Your task to perform on an android device: turn on javascript in the chrome app Image 0: 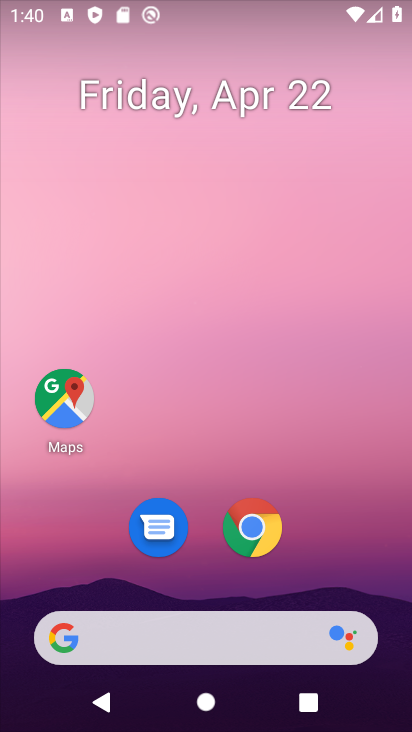
Step 0: drag from (355, 528) to (376, 14)
Your task to perform on an android device: turn on javascript in the chrome app Image 1: 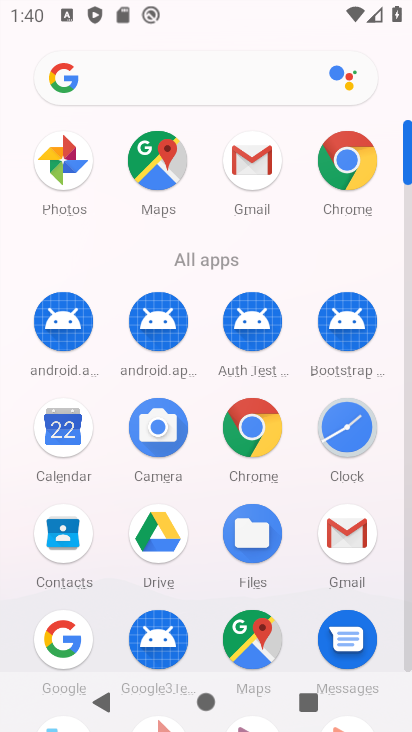
Step 1: click (335, 163)
Your task to perform on an android device: turn on javascript in the chrome app Image 2: 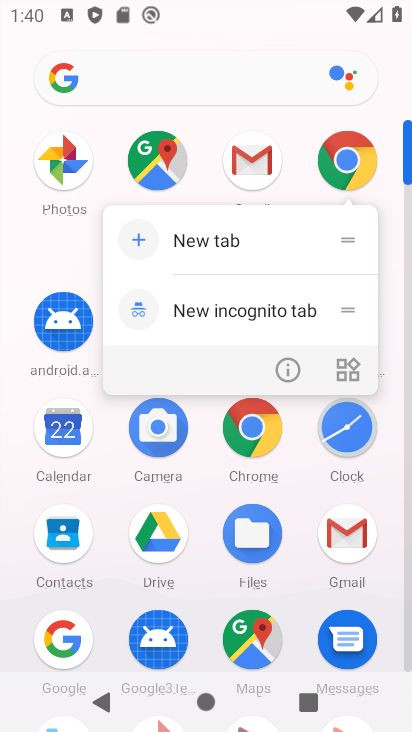
Step 2: click (335, 162)
Your task to perform on an android device: turn on javascript in the chrome app Image 3: 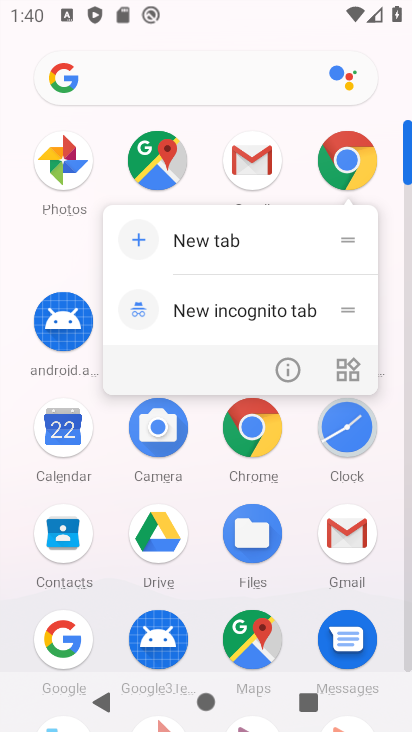
Step 3: click (335, 160)
Your task to perform on an android device: turn on javascript in the chrome app Image 4: 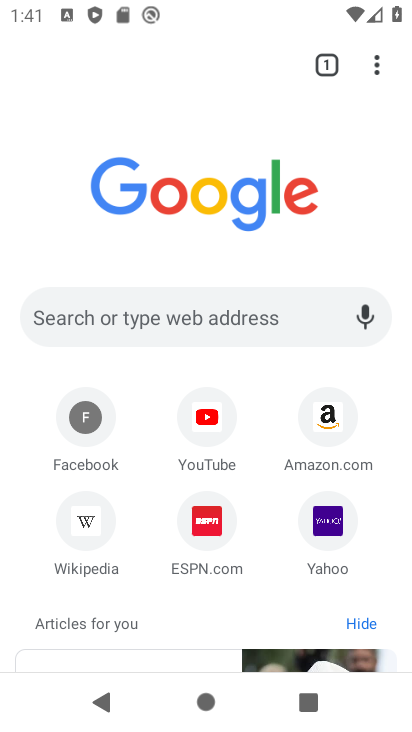
Step 4: drag from (370, 71) to (168, 539)
Your task to perform on an android device: turn on javascript in the chrome app Image 5: 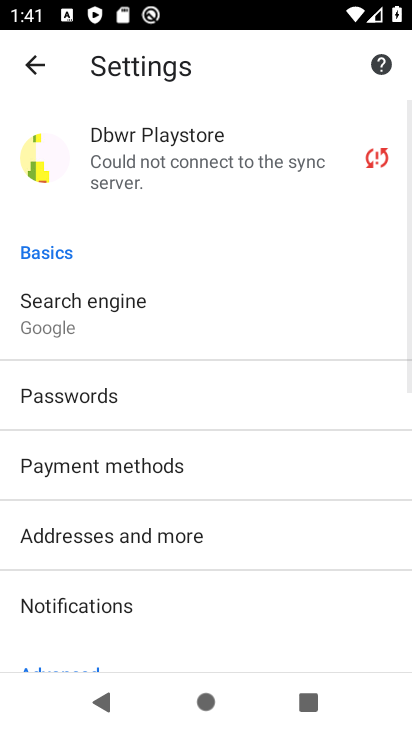
Step 5: drag from (190, 575) to (107, 213)
Your task to perform on an android device: turn on javascript in the chrome app Image 6: 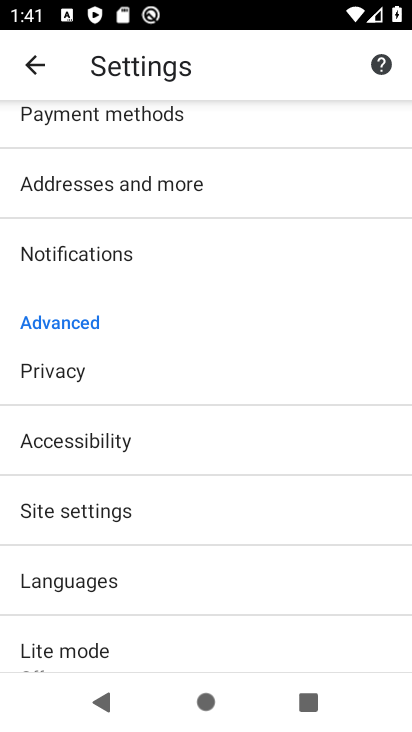
Step 6: click (109, 513)
Your task to perform on an android device: turn on javascript in the chrome app Image 7: 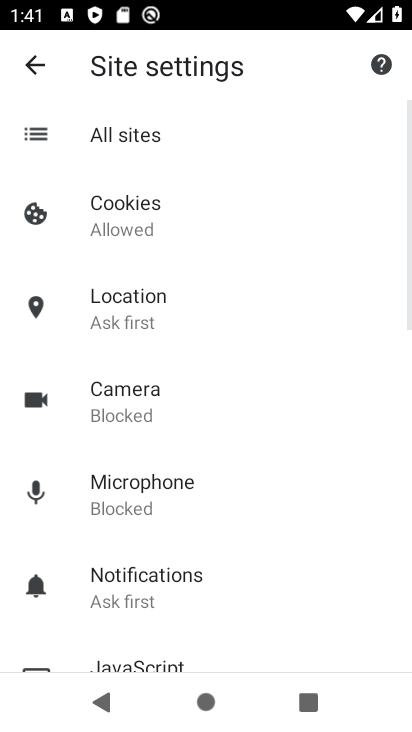
Step 7: drag from (137, 518) to (64, 180)
Your task to perform on an android device: turn on javascript in the chrome app Image 8: 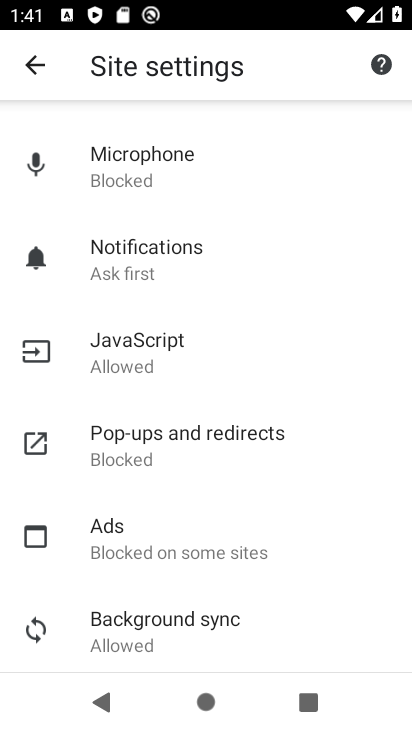
Step 8: drag from (222, 585) to (168, 274)
Your task to perform on an android device: turn on javascript in the chrome app Image 9: 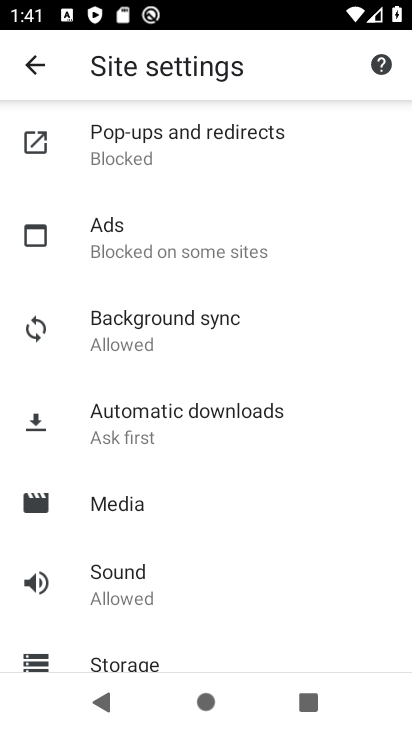
Step 9: drag from (213, 415) to (231, 581)
Your task to perform on an android device: turn on javascript in the chrome app Image 10: 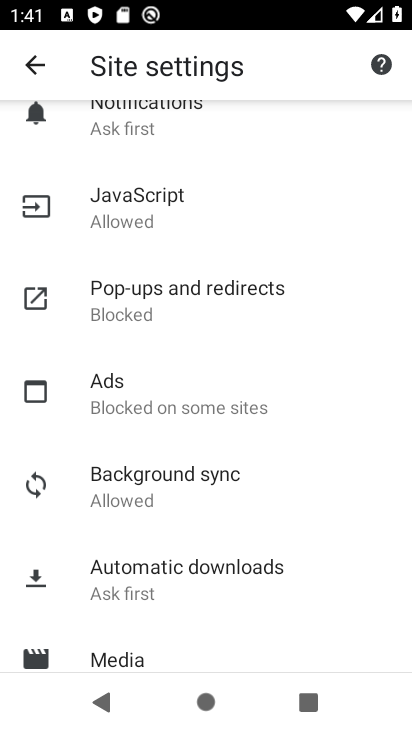
Step 10: click (120, 206)
Your task to perform on an android device: turn on javascript in the chrome app Image 11: 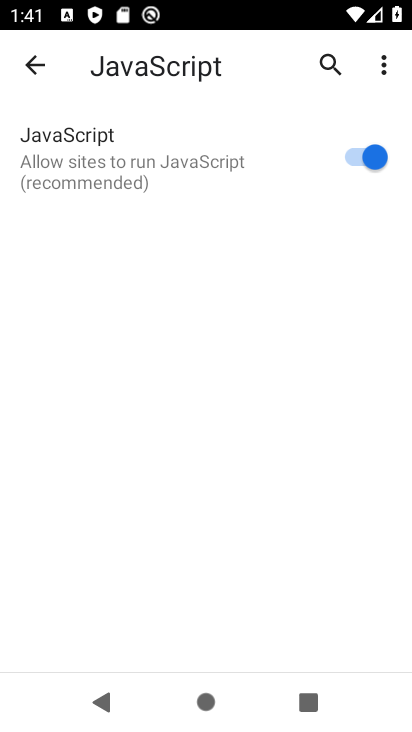
Step 11: task complete